Your task to perform on an android device: change keyboard looks Image 0: 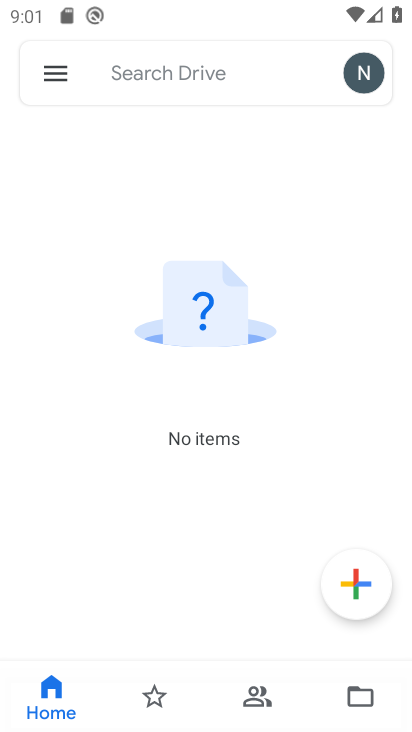
Step 0: press home button
Your task to perform on an android device: change keyboard looks Image 1: 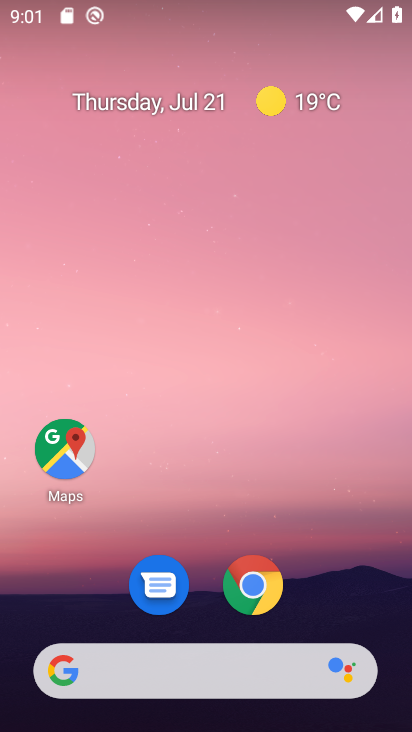
Step 1: drag from (320, 594) to (324, 63)
Your task to perform on an android device: change keyboard looks Image 2: 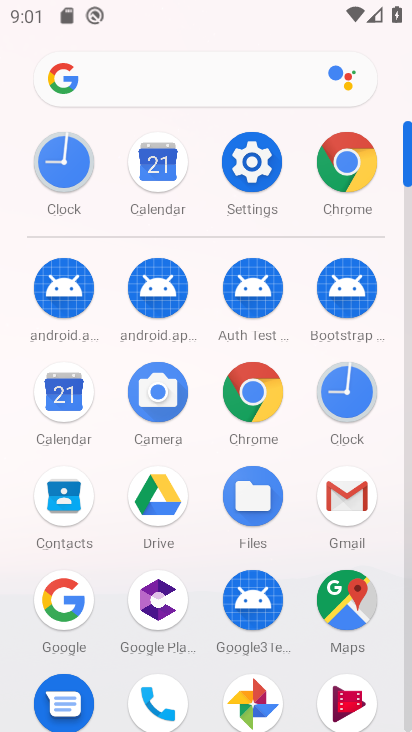
Step 2: click (258, 169)
Your task to perform on an android device: change keyboard looks Image 3: 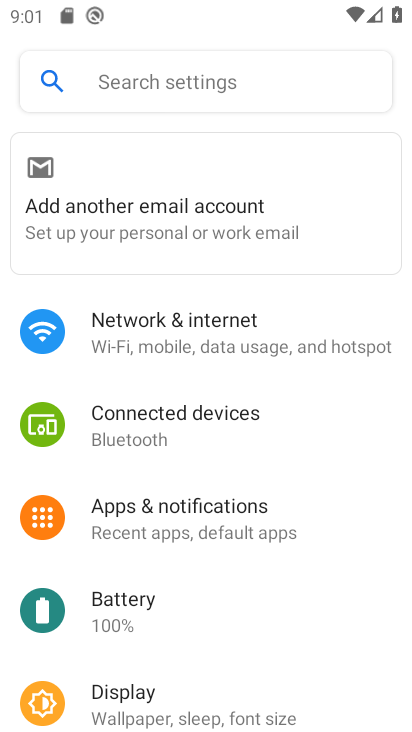
Step 3: drag from (218, 573) to (234, 65)
Your task to perform on an android device: change keyboard looks Image 4: 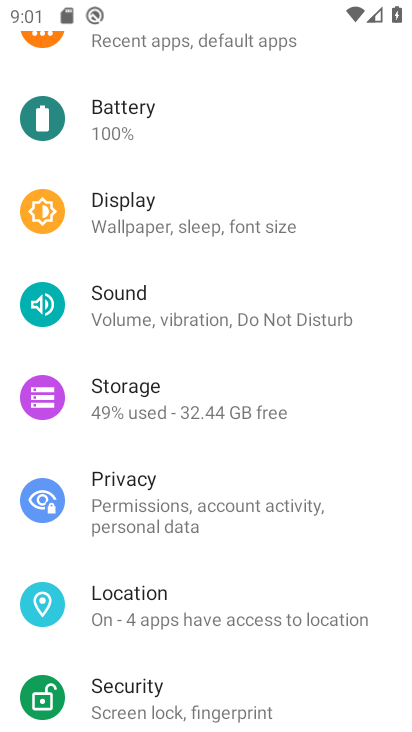
Step 4: drag from (202, 591) to (233, 117)
Your task to perform on an android device: change keyboard looks Image 5: 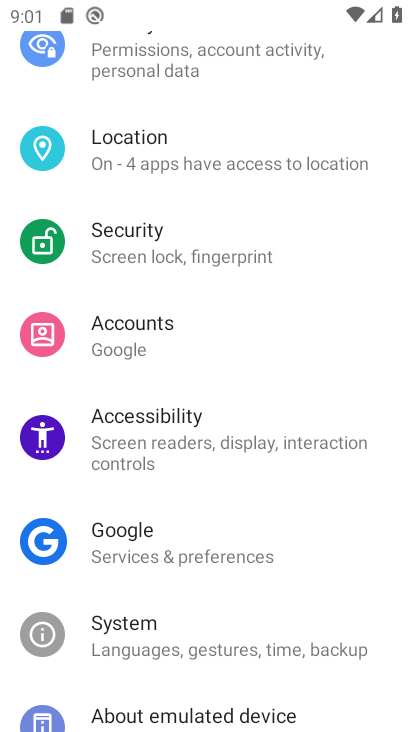
Step 5: click (204, 638)
Your task to perform on an android device: change keyboard looks Image 6: 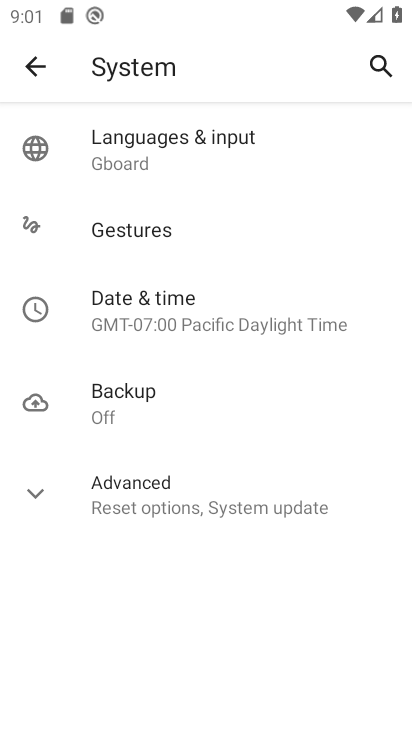
Step 6: click (151, 133)
Your task to perform on an android device: change keyboard looks Image 7: 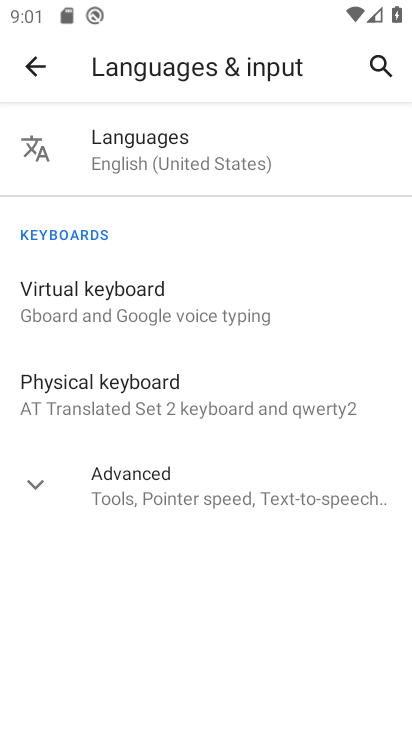
Step 7: click (100, 304)
Your task to perform on an android device: change keyboard looks Image 8: 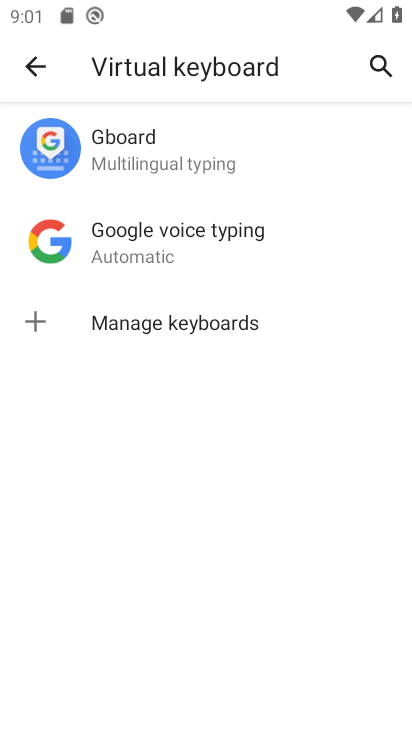
Step 8: click (177, 162)
Your task to perform on an android device: change keyboard looks Image 9: 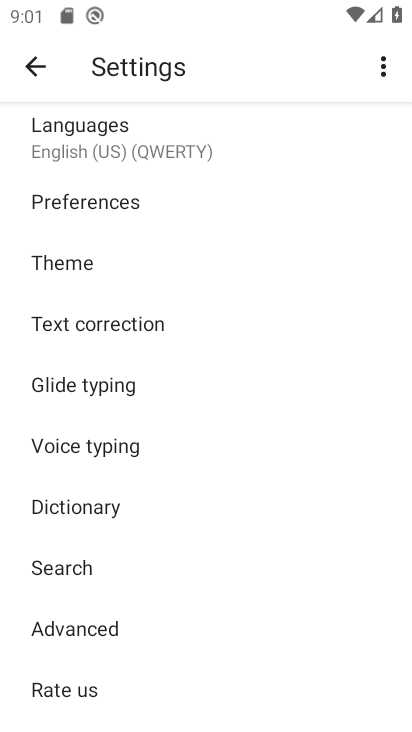
Step 9: drag from (160, 526) to (166, 387)
Your task to perform on an android device: change keyboard looks Image 10: 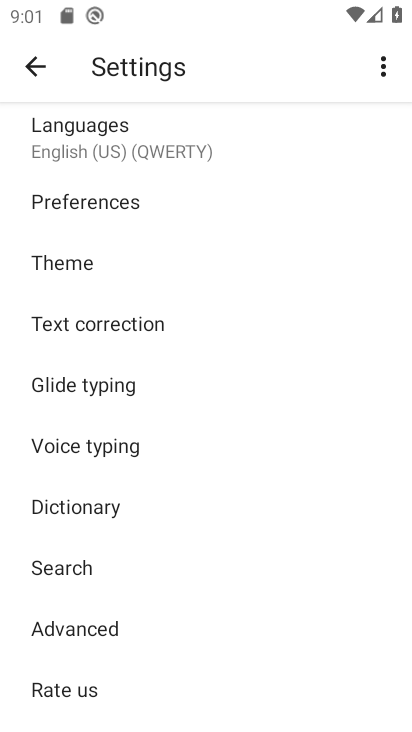
Step 10: click (93, 268)
Your task to perform on an android device: change keyboard looks Image 11: 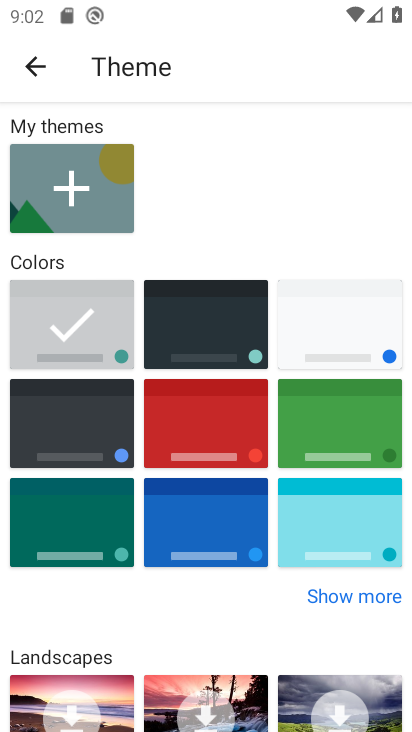
Step 11: click (341, 418)
Your task to perform on an android device: change keyboard looks Image 12: 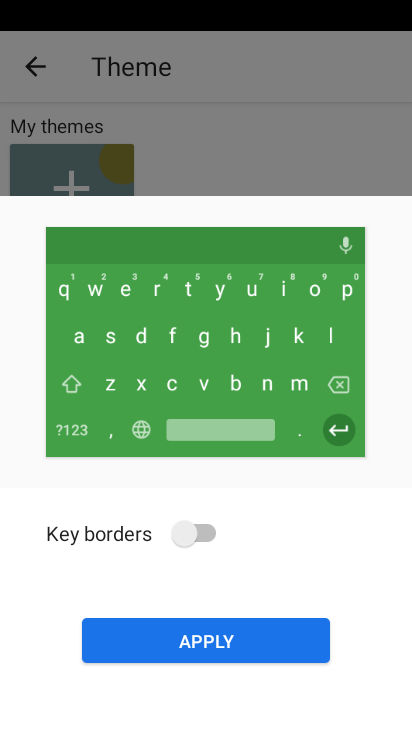
Step 12: click (202, 525)
Your task to perform on an android device: change keyboard looks Image 13: 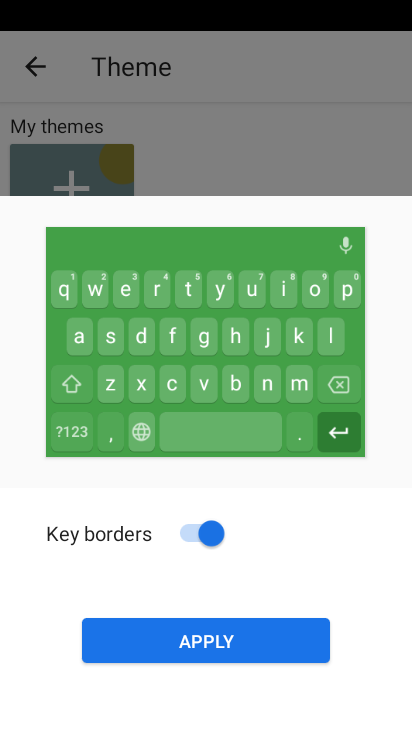
Step 13: click (222, 645)
Your task to perform on an android device: change keyboard looks Image 14: 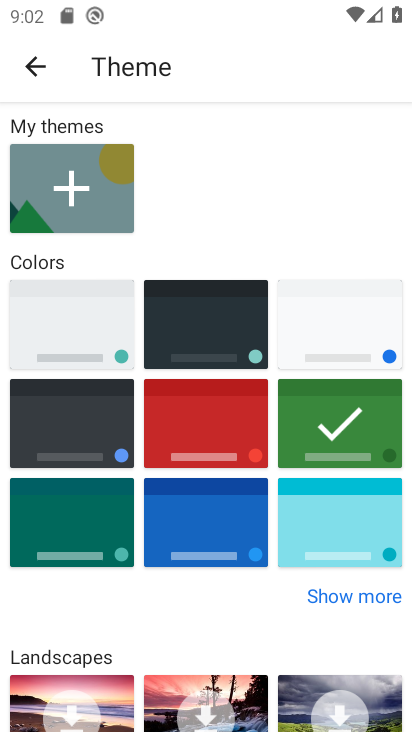
Step 14: task complete